Your task to perform on an android device: set the stopwatch Image 0: 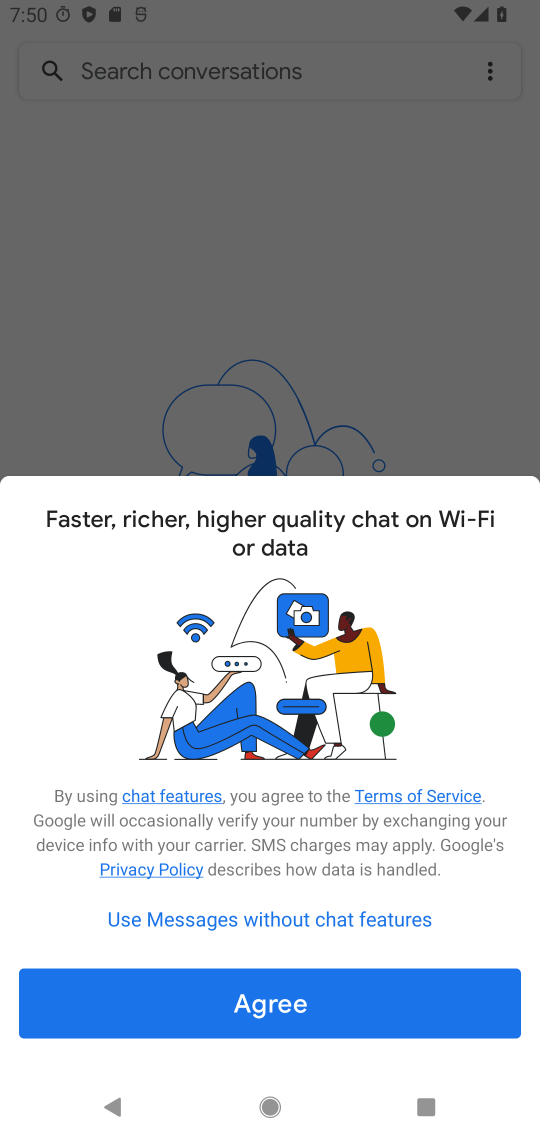
Step 0: press home button
Your task to perform on an android device: set the stopwatch Image 1: 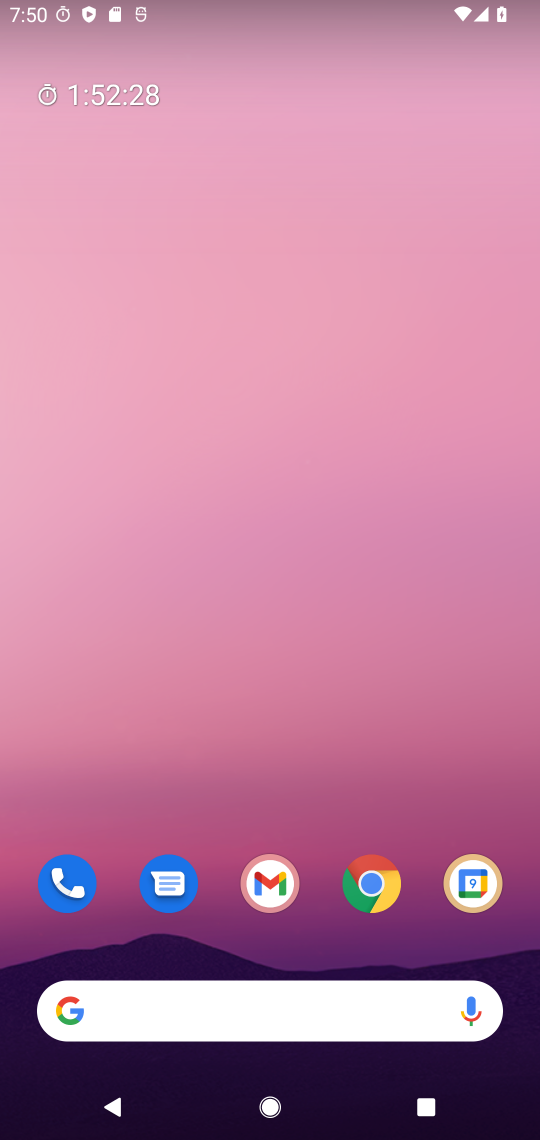
Step 1: drag from (292, 806) to (319, 198)
Your task to perform on an android device: set the stopwatch Image 2: 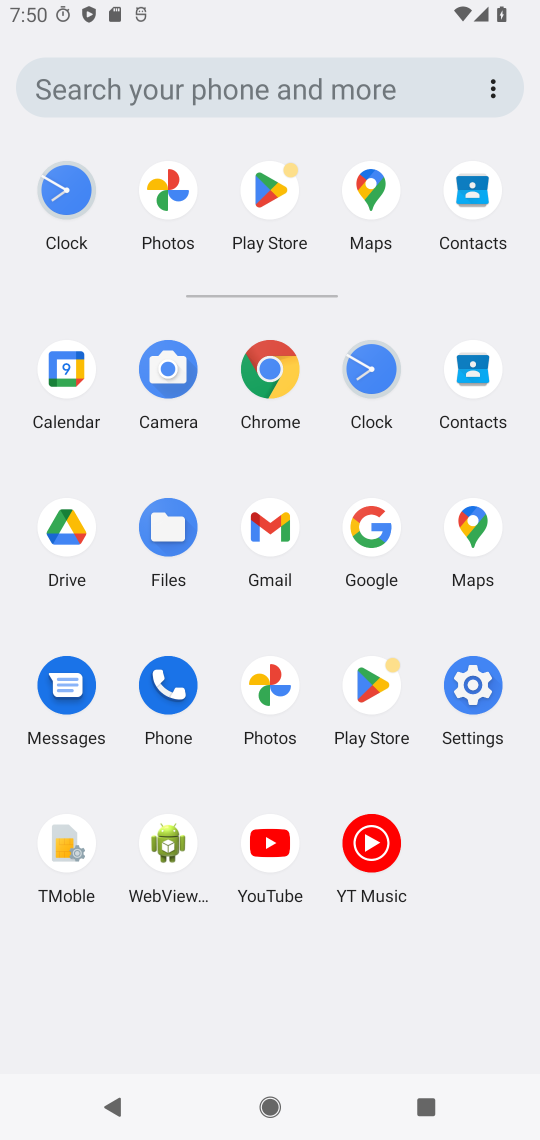
Step 2: click (370, 361)
Your task to perform on an android device: set the stopwatch Image 3: 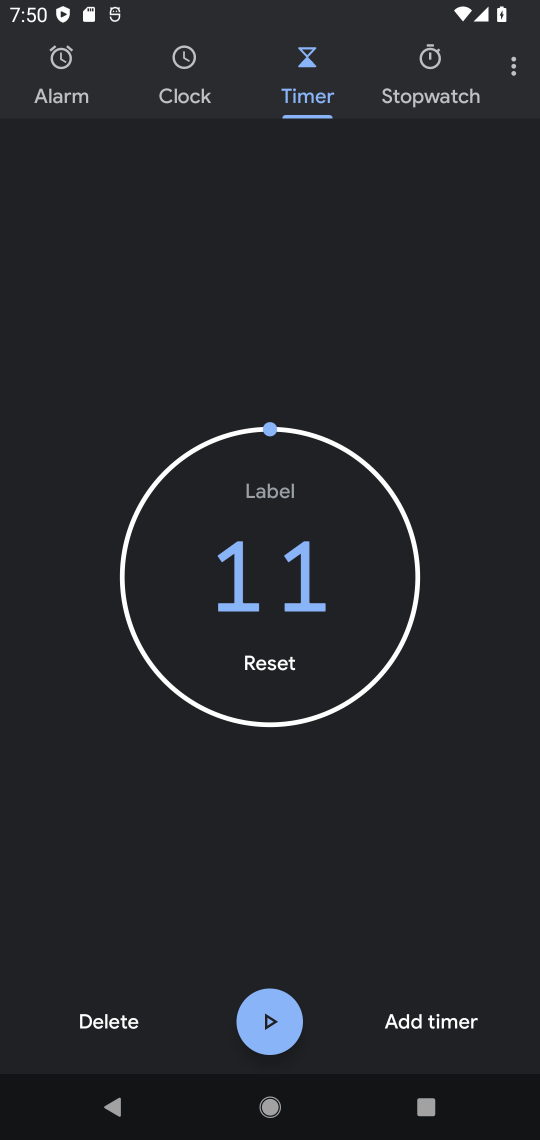
Step 3: click (433, 75)
Your task to perform on an android device: set the stopwatch Image 4: 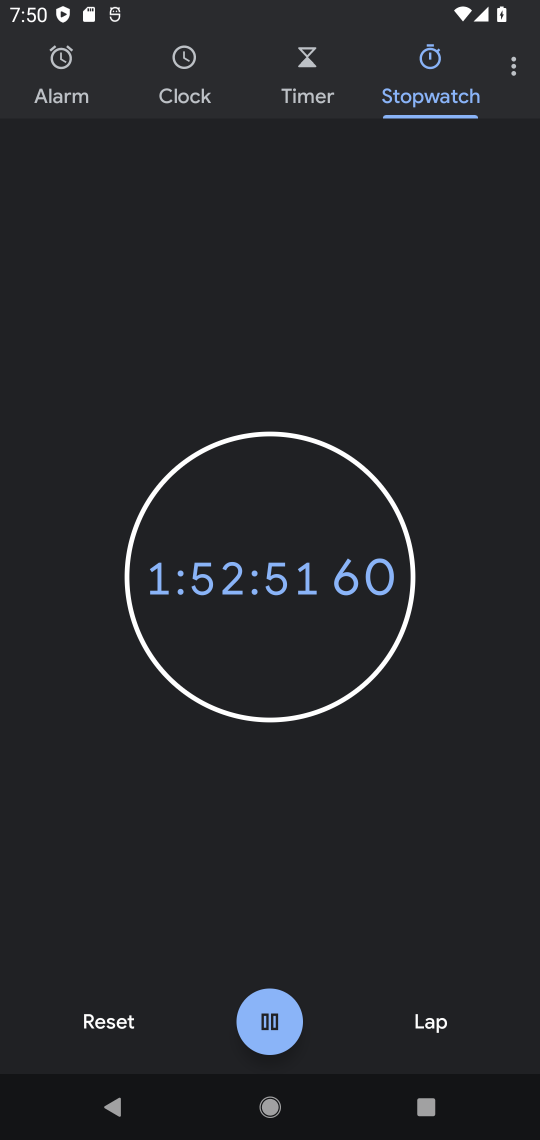
Step 4: task complete